Your task to perform on an android device: Go to Google maps Image 0: 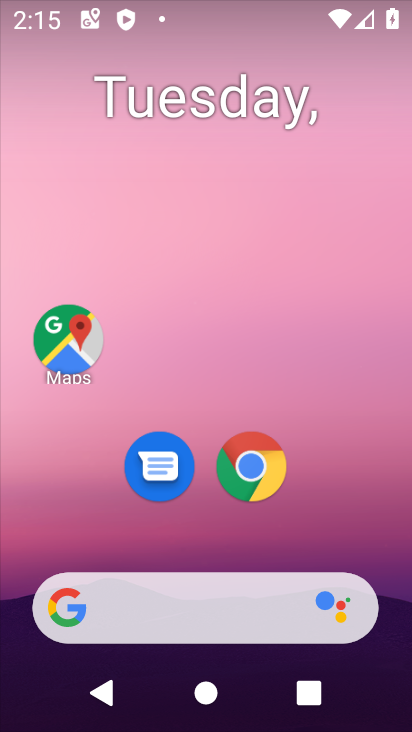
Step 0: drag from (359, 524) to (321, 1)
Your task to perform on an android device: Go to Google maps Image 1: 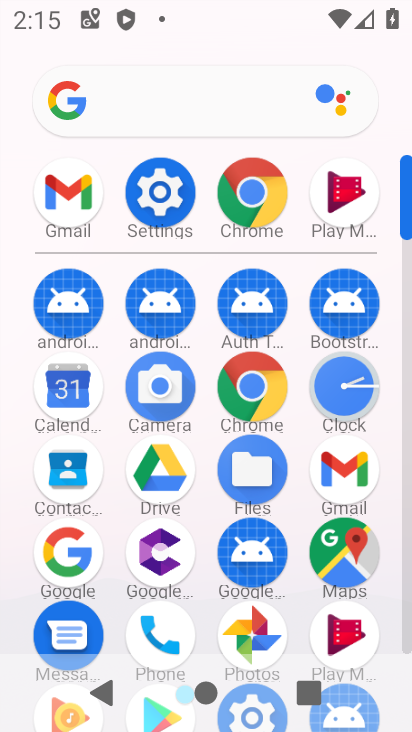
Step 1: click (332, 554)
Your task to perform on an android device: Go to Google maps Image 2: 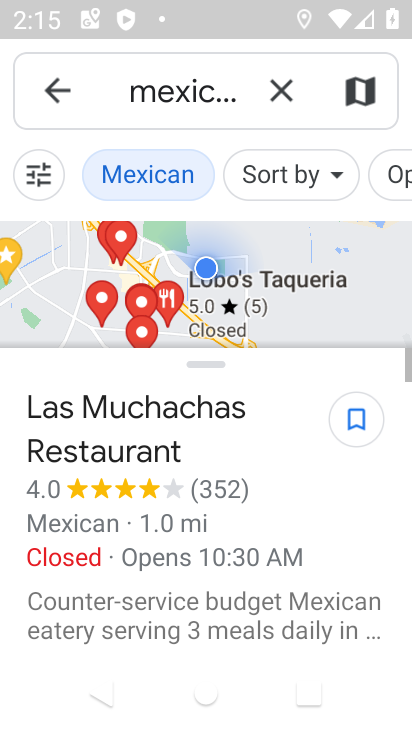
Step 2: task complete